Your task to perform on an android device: Open calendar and show me the first week of next month Image 0: 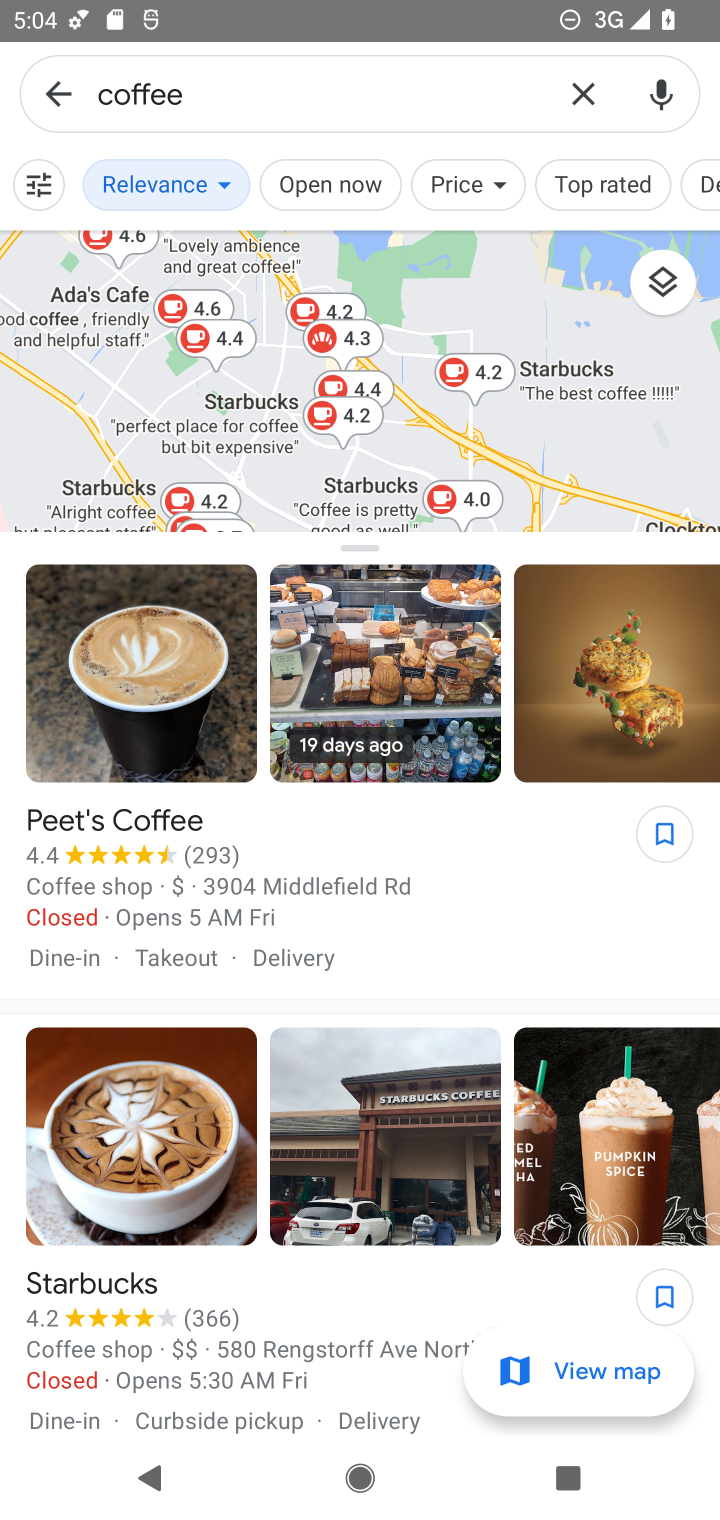
Step 0: press home button
Your task to perform on an android device: Open calendar and show me the first week of next month Image 1: 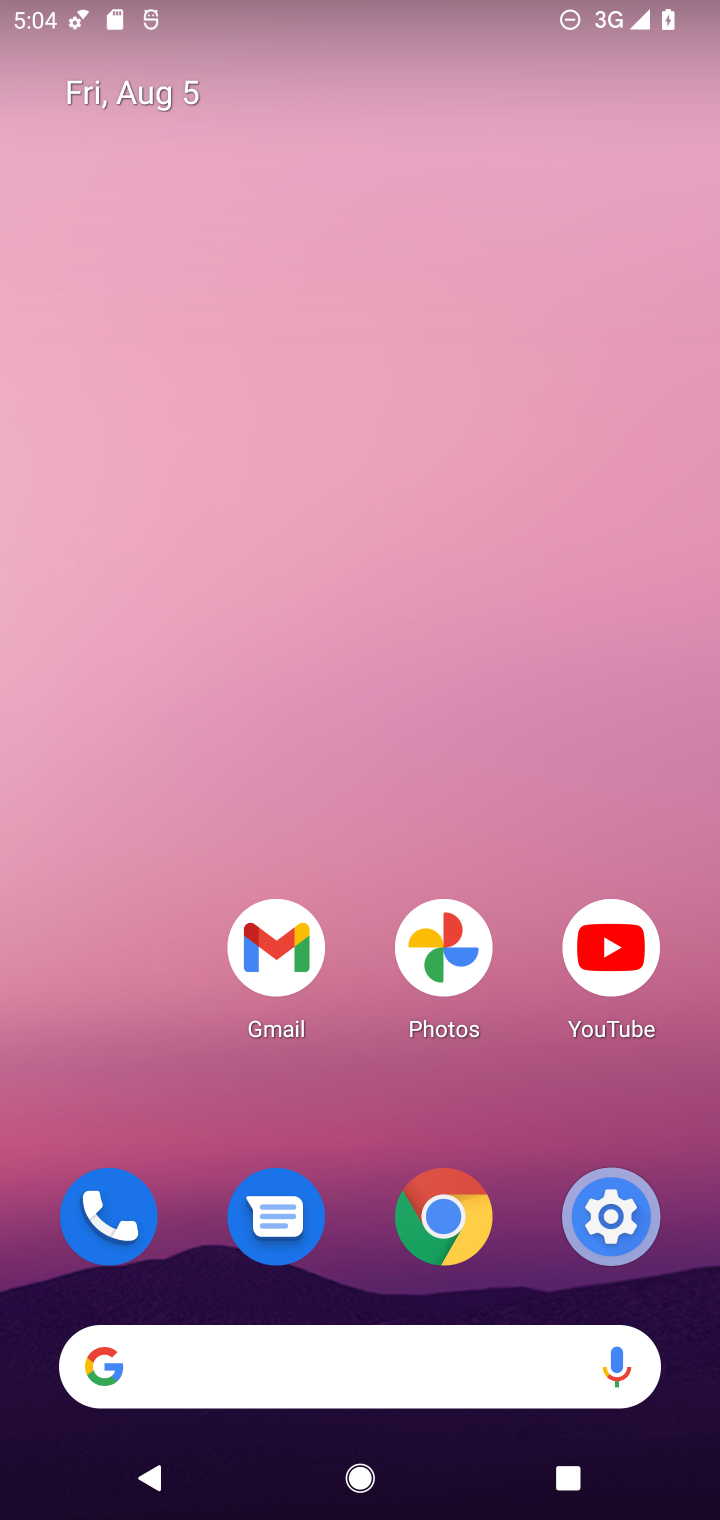
Step 1: drag from (365, 1095) to (229, 339)
Your task to perform on an android device: Open calendar and show me the first week of next month Image 2: 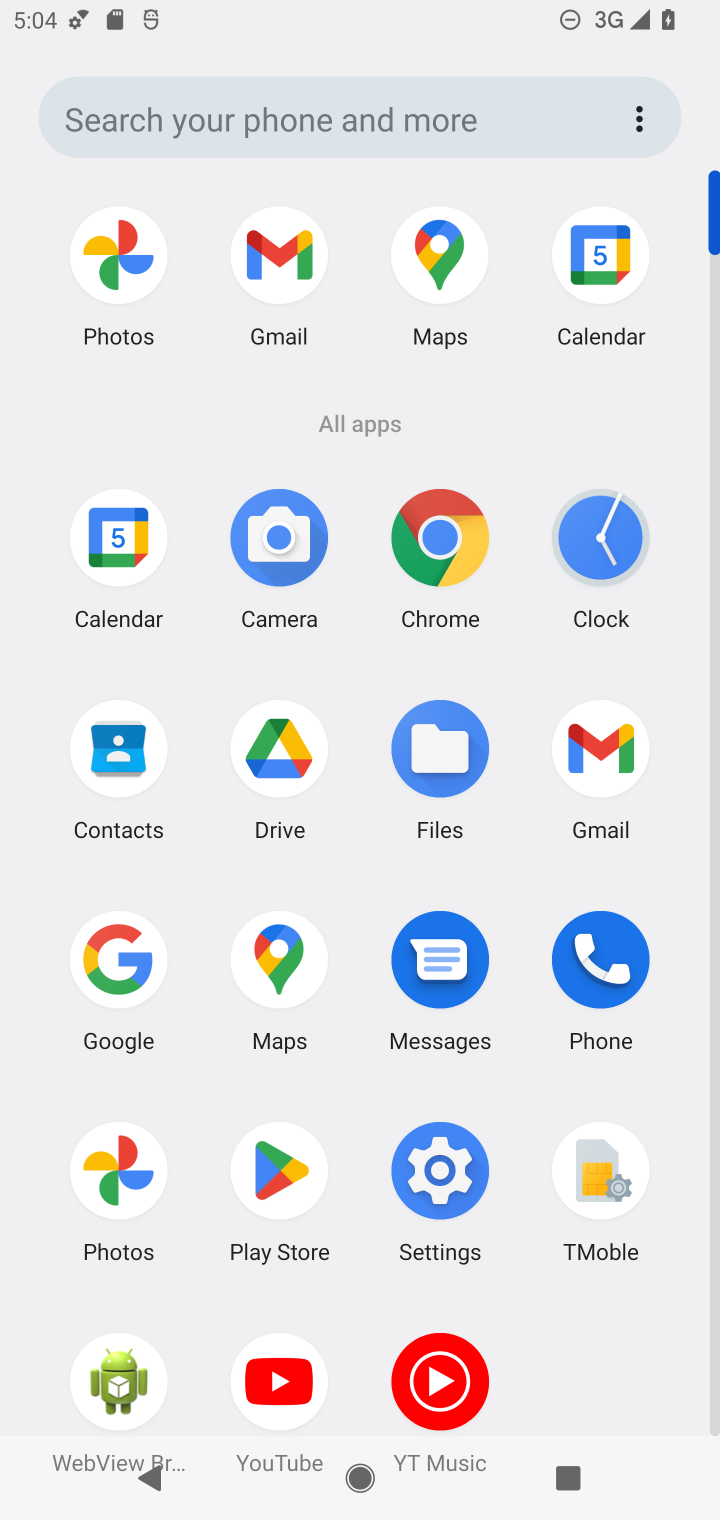
Step 2: click (113, 562)
Your task to perform on an android device: Open calendar and show me the first week of next month Image 3: 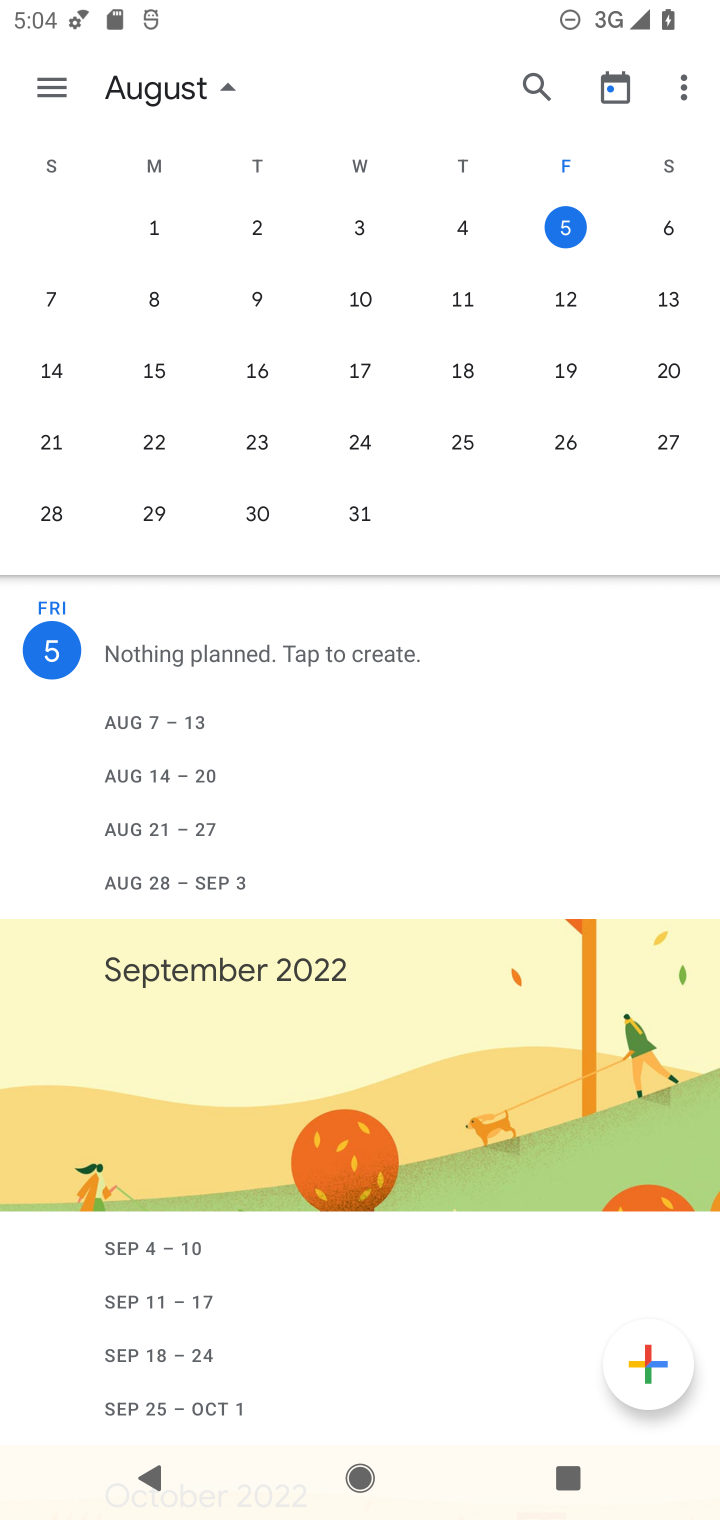
Step 3: drag from (679, 306) to (53, 216)
Your task to perform on an android device: Open calendar and show me the first week of next month Image 4: 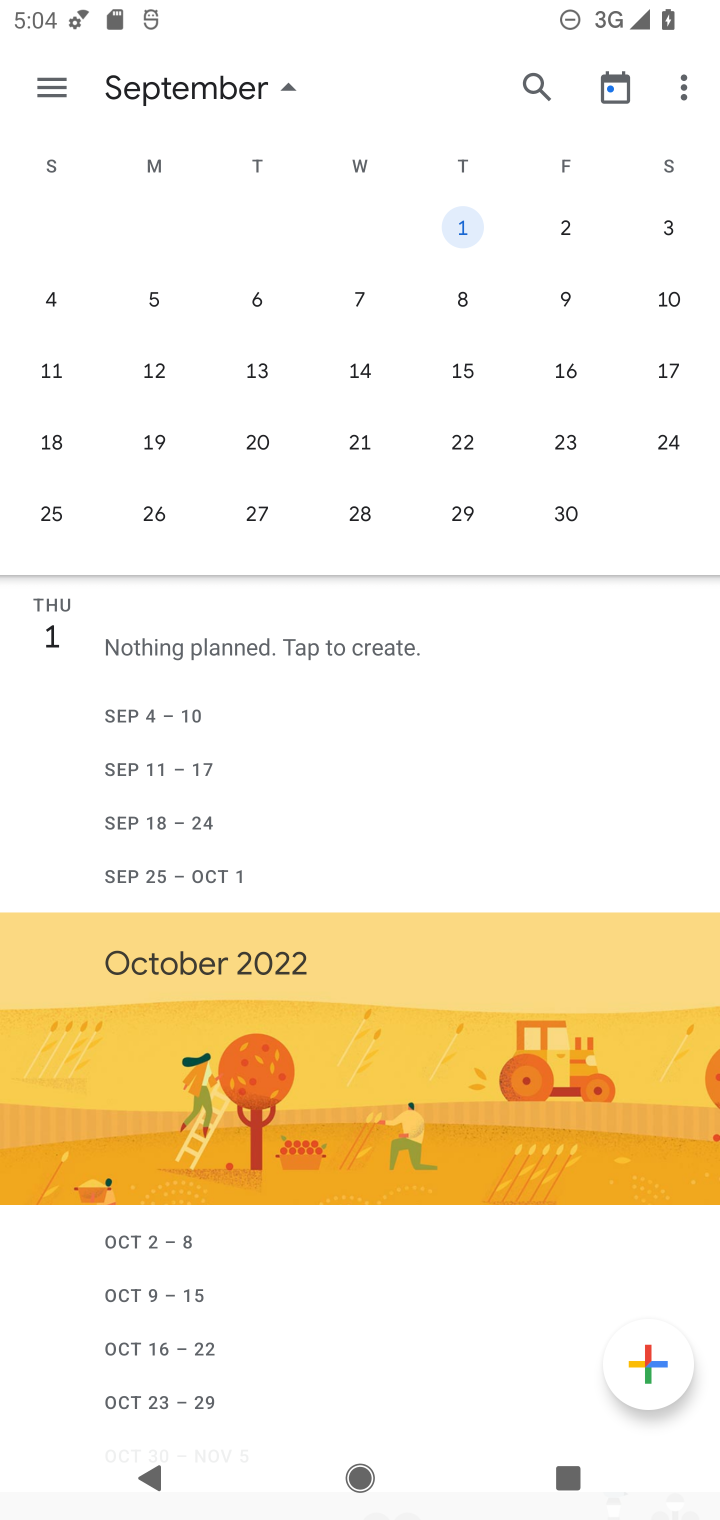
Step 4: click (479, 221)
Your task to perform on an android device: Open calendar and show me the first week of next month Image 5: 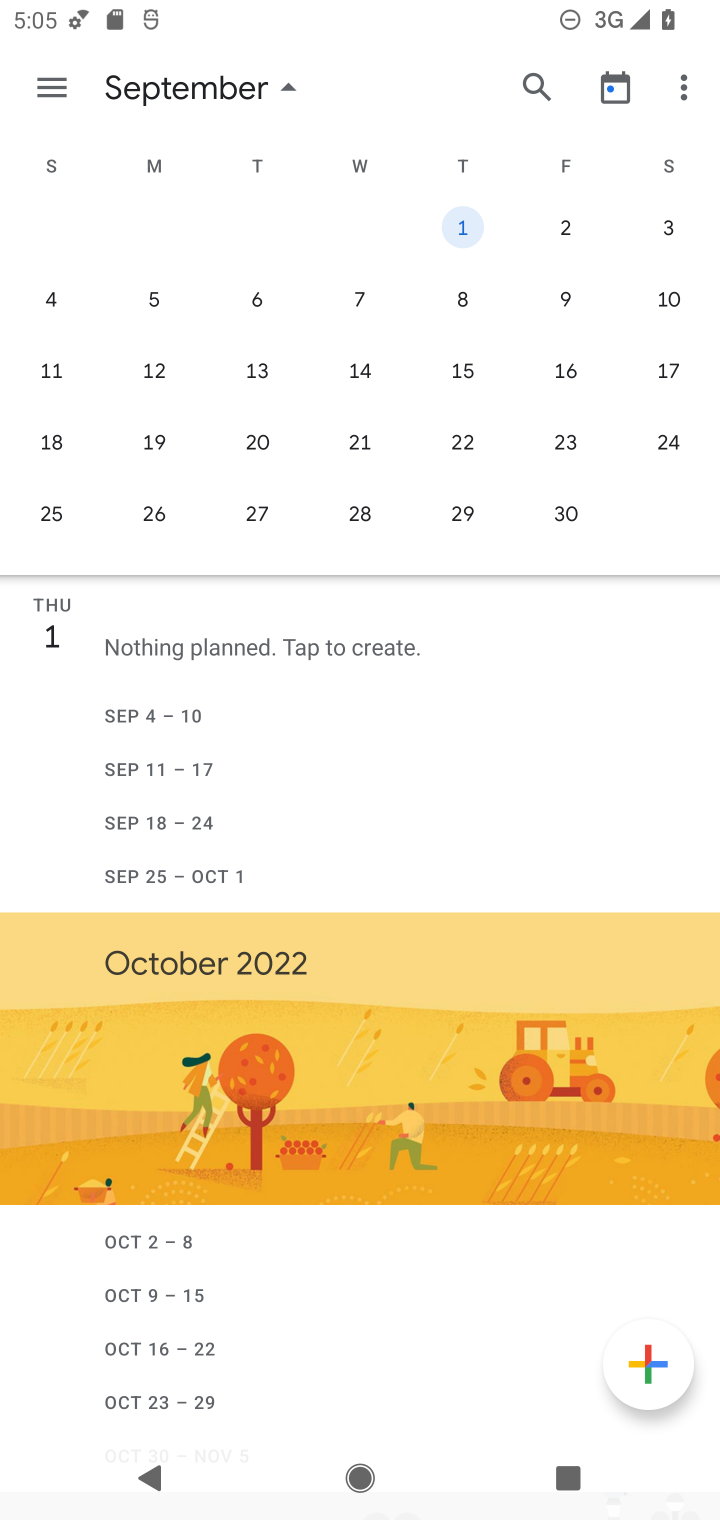
Step 5: task complete